Your task to perform on an android device: Search for Mexican restaurants on Maps Image 0: 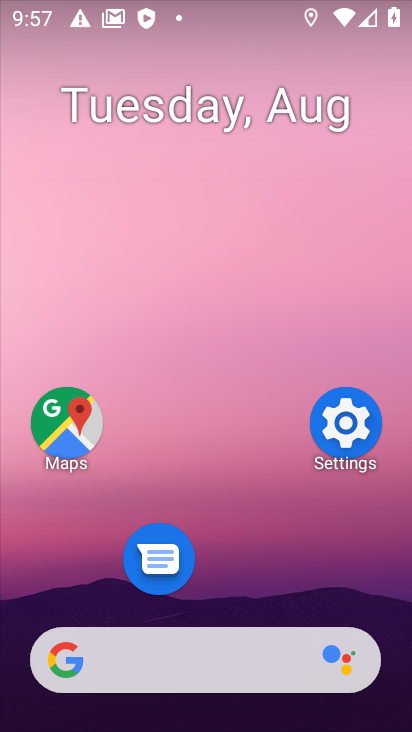
Step 0: click (78, 432)
Your task to perform on an android device: Search for Mexican restaurants on Maps Image 1: 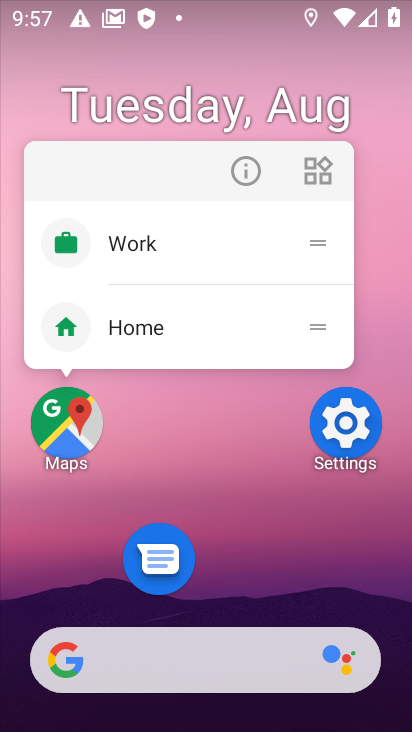
Step 1: click (49, 441)
Your task to perform on an android device: Search for Mexican restaurants on Maps Image 2: 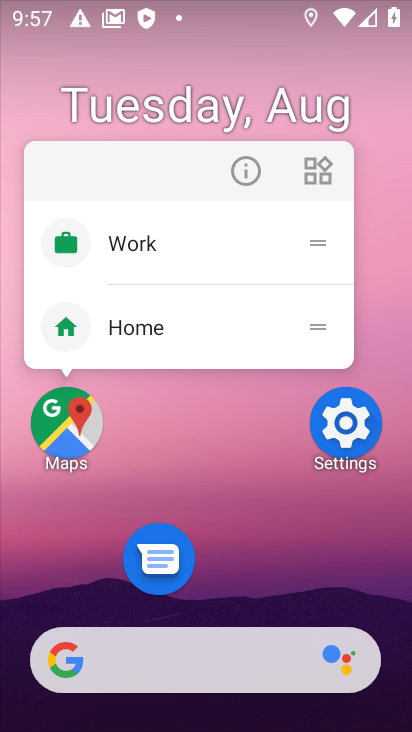
Step 2: click (65, 426)
Your task to perform on an android device: Search for Mexican restaurants on Maps Image 3: 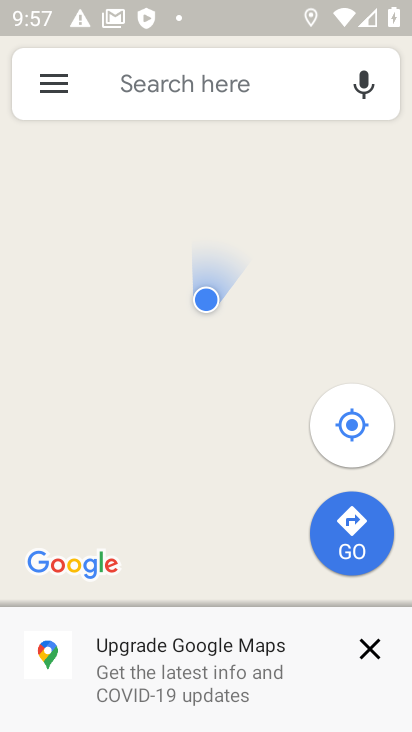
Step 3: click (193, 82)
Your task to perform on an android device: Search for Mexican restaurants on Maps Image 4: 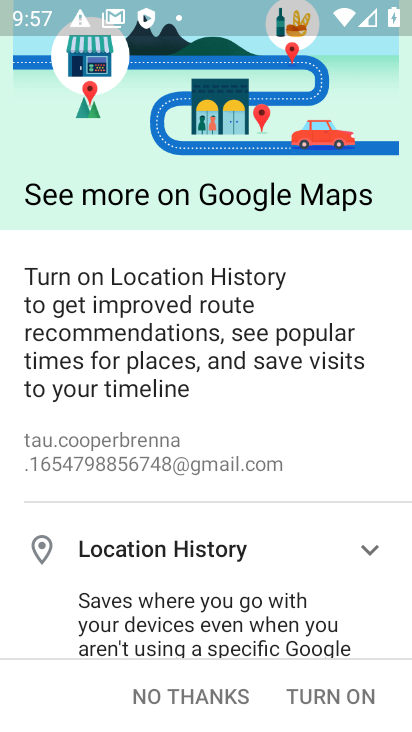
Step 4: click (216, 699)
Your task to perform on an android device: Search for Mexican restaurants on Maps Image 5: 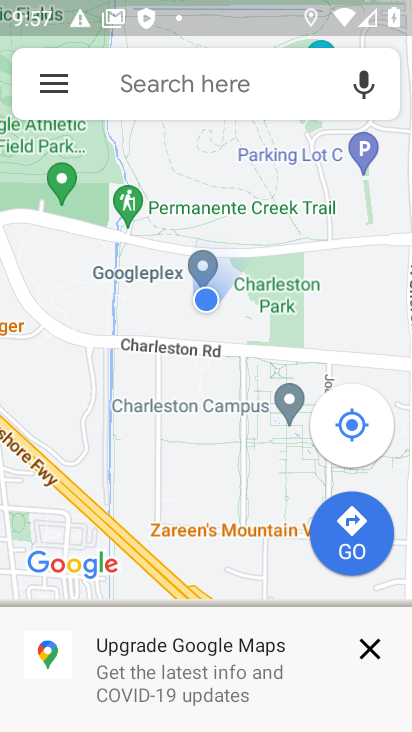
Step 5: click (178, 78)
Your task to perform on an android device: Search for Mexican restaurants on Maps Image 6: 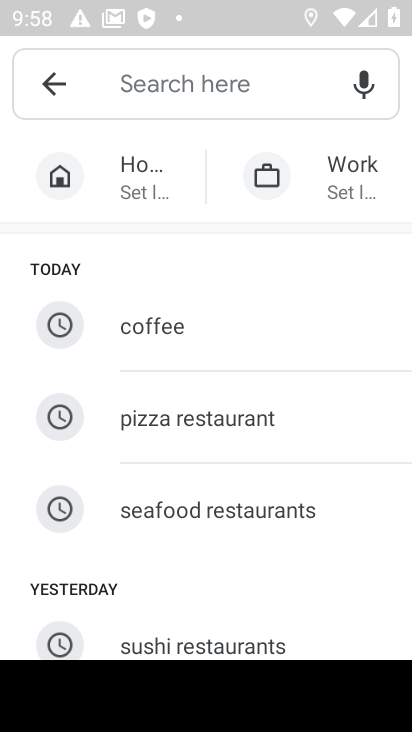
Step 6: drag from (238, 444) to (346, 182)
Your task to perform on an android device: Search for Mexican restaurants on Maps Image 7: 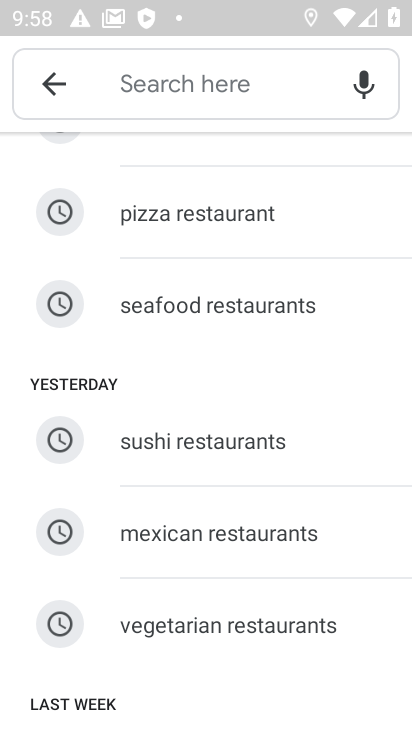
Step 7: click (247, 522)
Your task to perform on an android device: Search for Mexican restaurants on Maps Image 8: 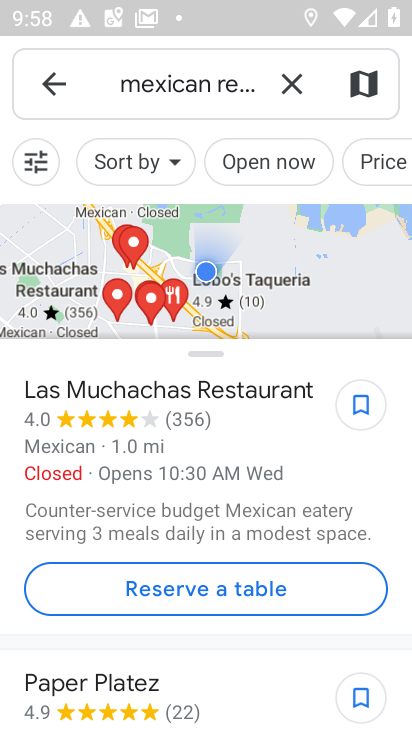
Step 8: task complete